Your task to perform on an android device: check out phone information Image 0: 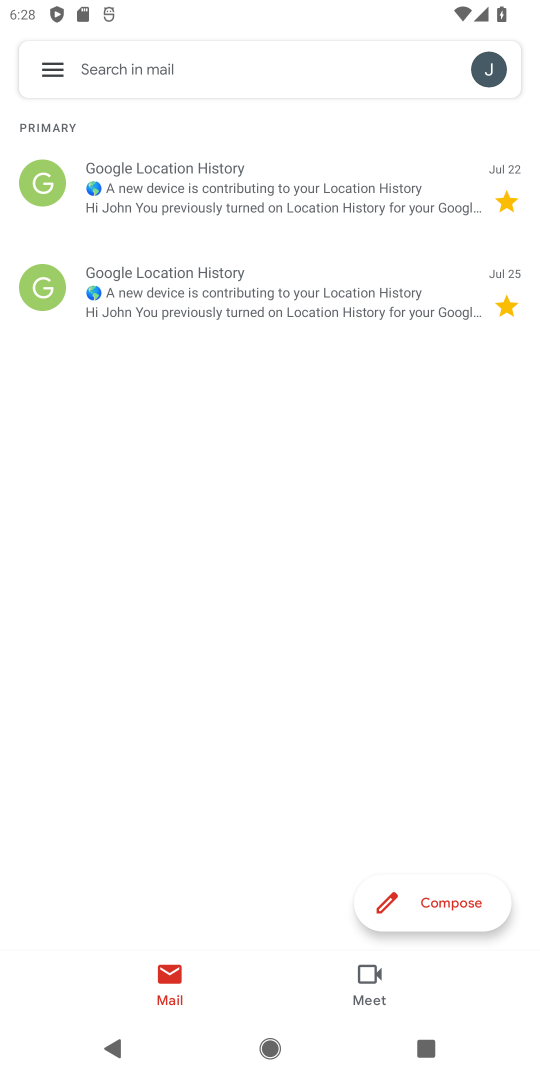
Step 0: press home button
Your task to perform on an android device: check out phone information Image 1: 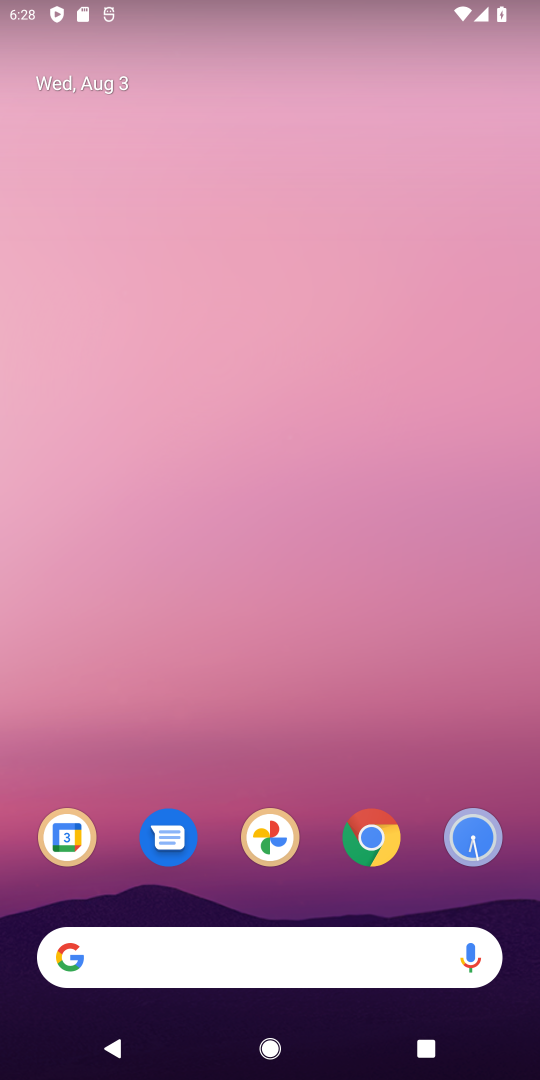
Step 1: drag from (360, 674) to (338, 63)
Your task to perform on an android device: check out phone information Image 2: 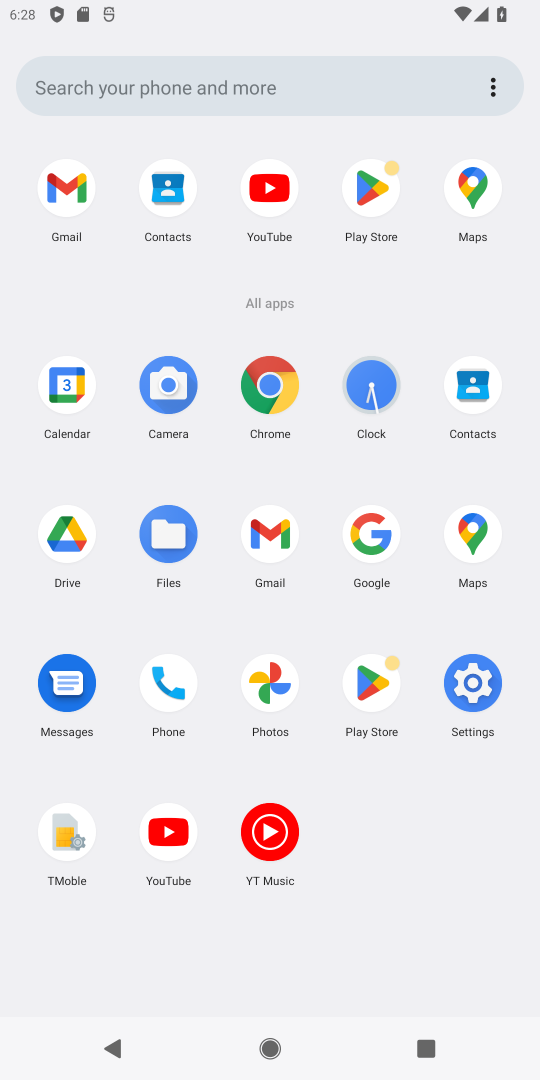
Step 2: click (444, 678)
Your task to perform on an android device: check out phone information Image 3: 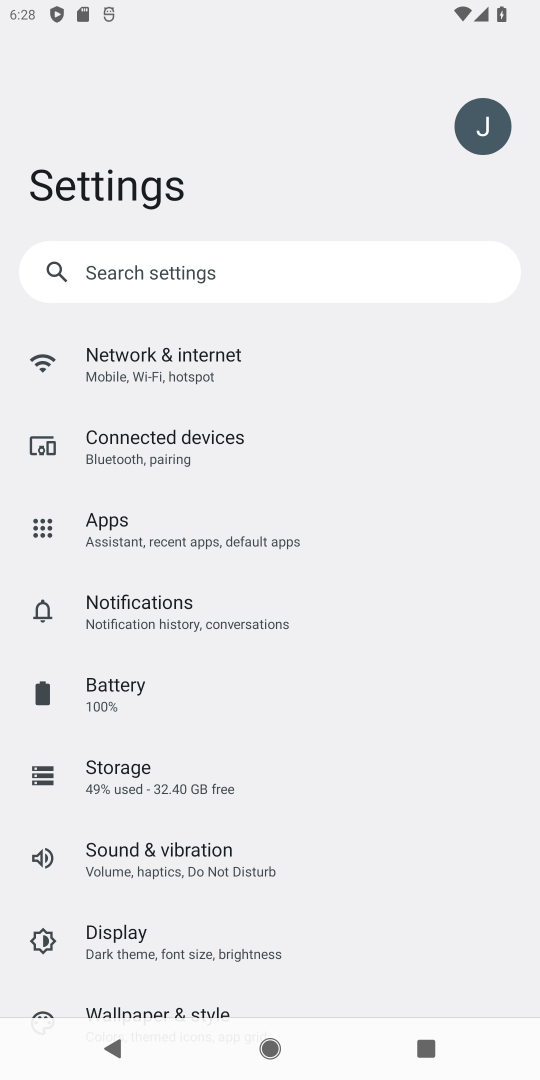
Step 3: drag from (314, 948) to (301, 226)
Your task to perform on an android device: check out phone information Image 4: 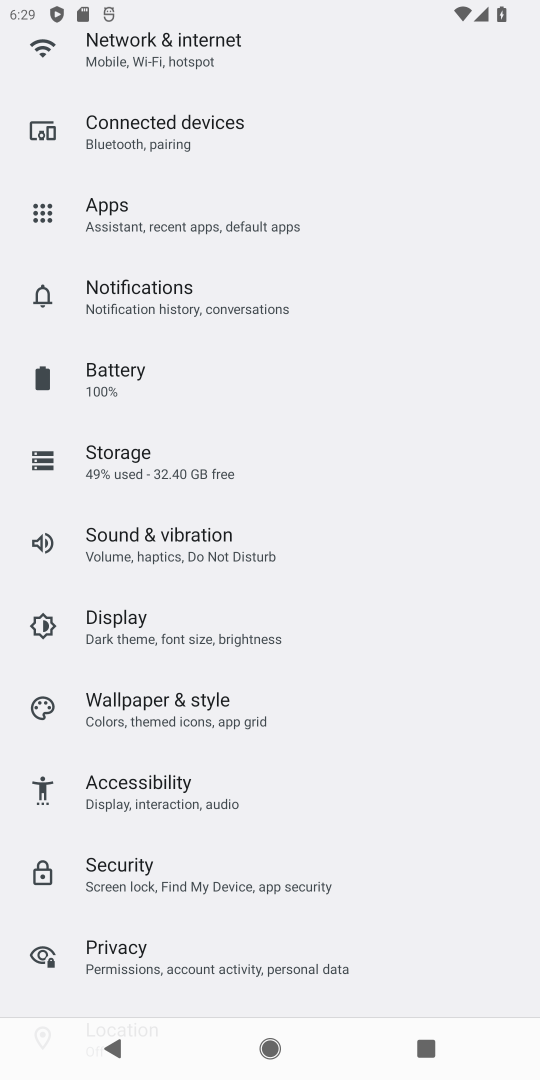
Step 4: drag from (312, 923) to (329, 107)
Your task to perform on an android device: check out phone information Image 5: 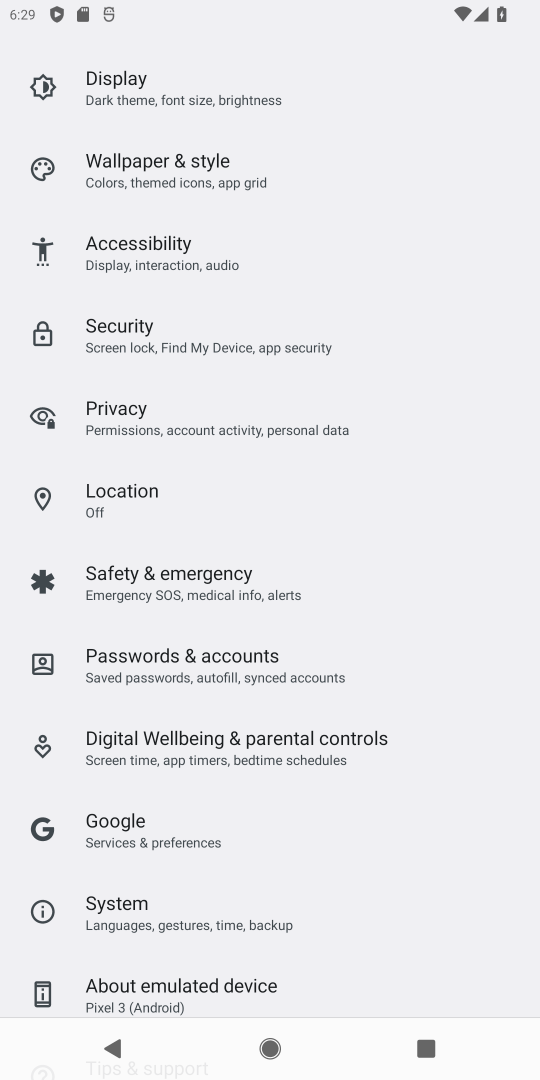
Step 5: drag from (247, 961) to (294, 260)
Your task to perform on an android device: check out phone information Image 6: 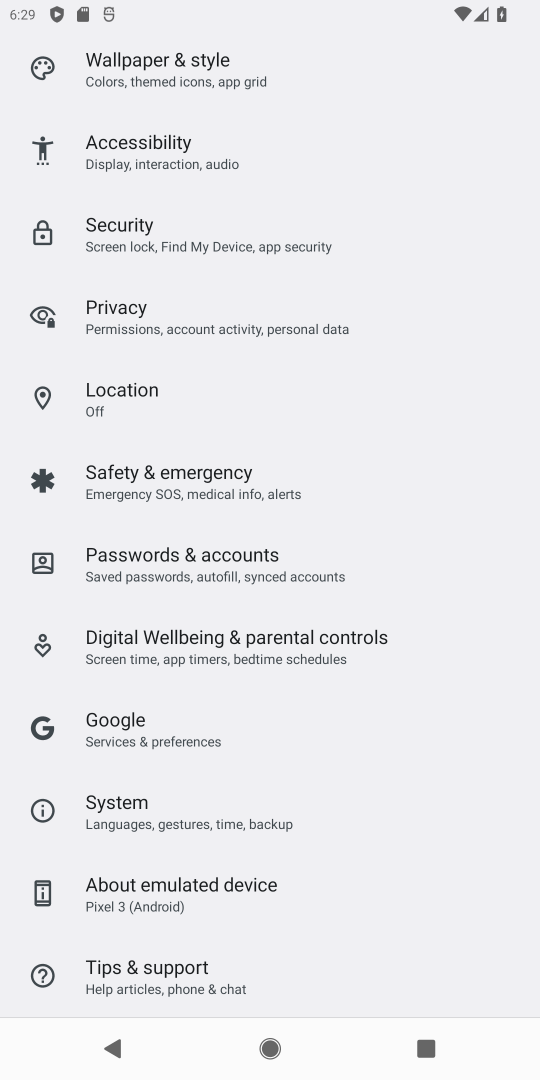
Step 6: drag from (177, 917) to (147, 272)
Your task to perform on an android device: check out phone information Image 7: 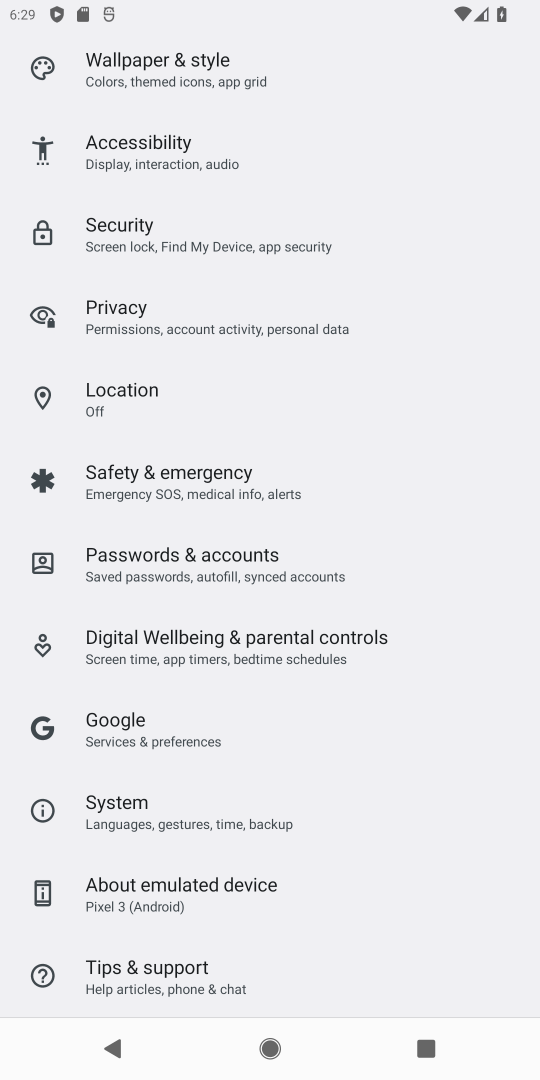
Step 7: click (145, 894)
Your task to perform on an android device: check out phone information Image 8: 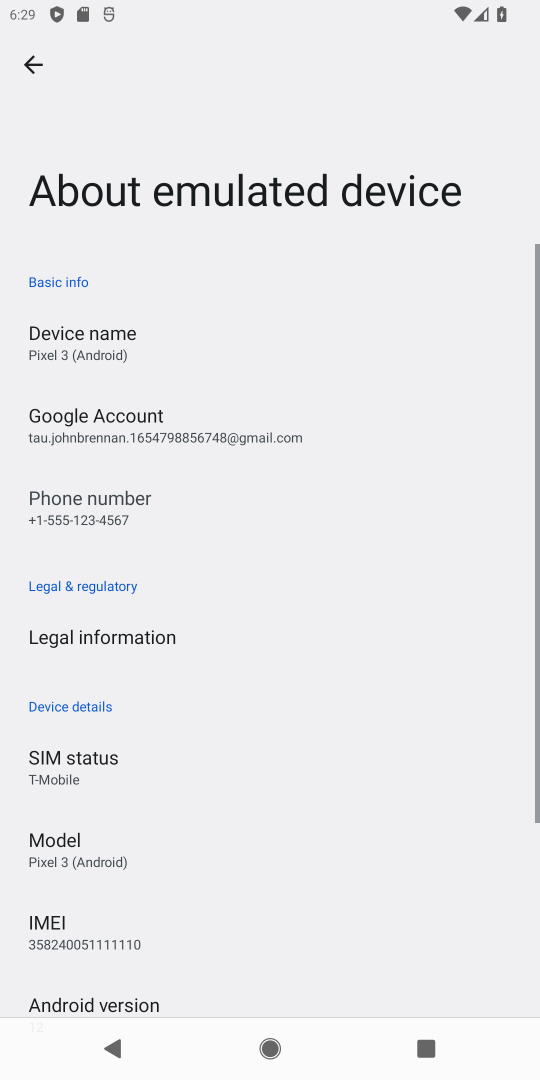
Step 8: task complete